Your task to perform on an android device: Go to Wikipedia Image 0: 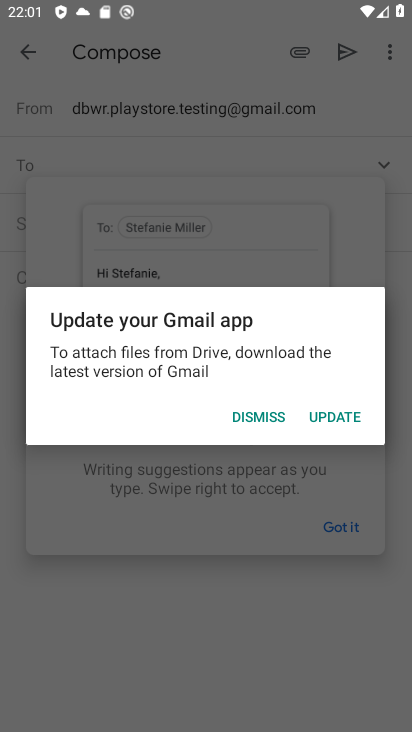
Step 0: press home button
Your task to perform on an android device: Go to Wikipedia Image 1: 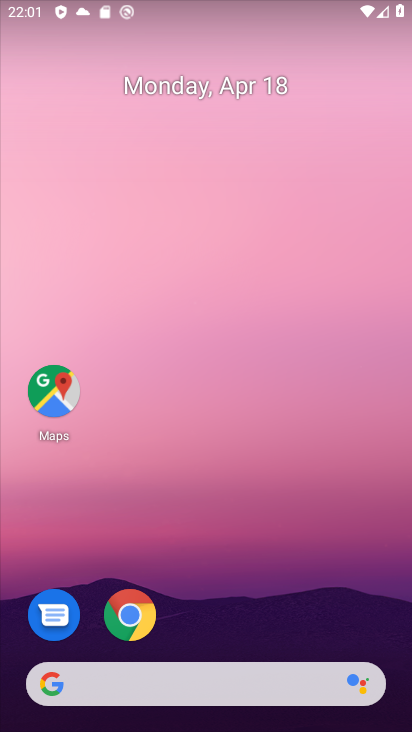
Step 1: click (141, 610)
Your task to perform on an android device: Go to Wikipedia Image 2: 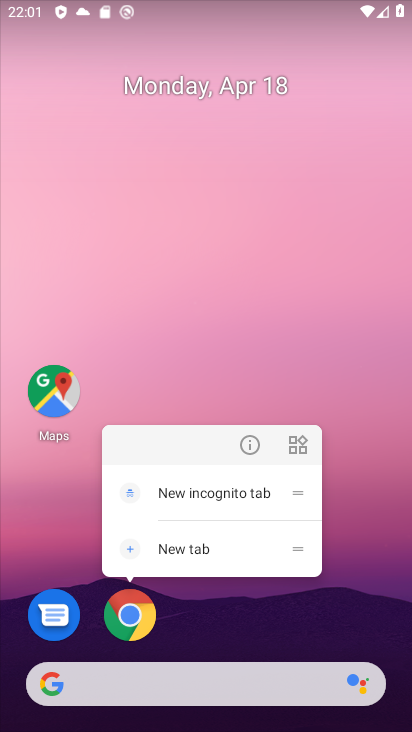
Step 2: click (131, 628)
Your task to perform on an android device: Go to Wikipedia Image 3: 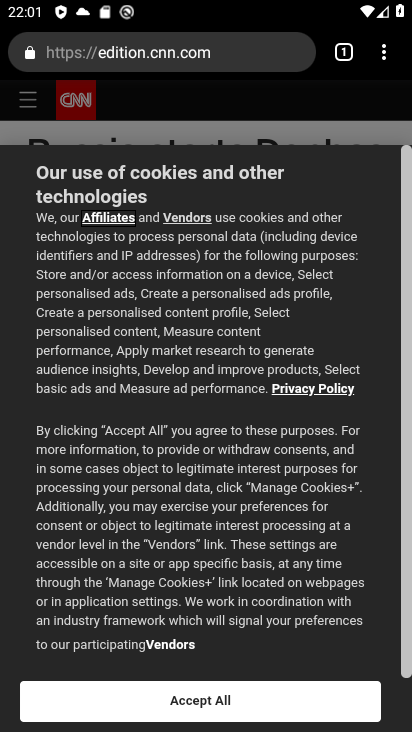
Step 3: click (387, 54)
Your task to perform on an android device: Go to Wikipedia Image 4: 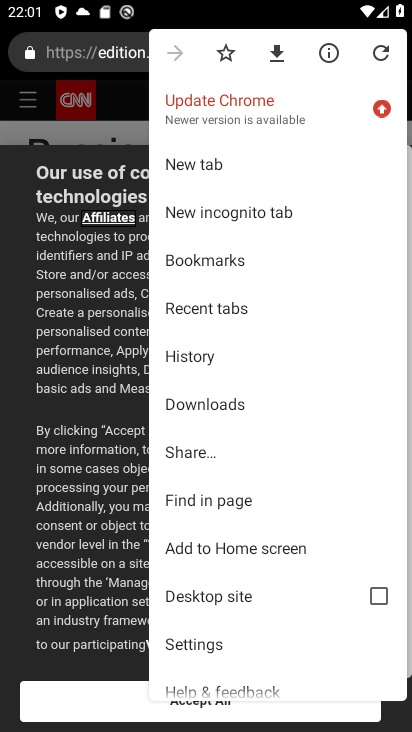
Step 4: click (211, 160)
Your task to perform on an android device: Go to Wikipedia Image 5: 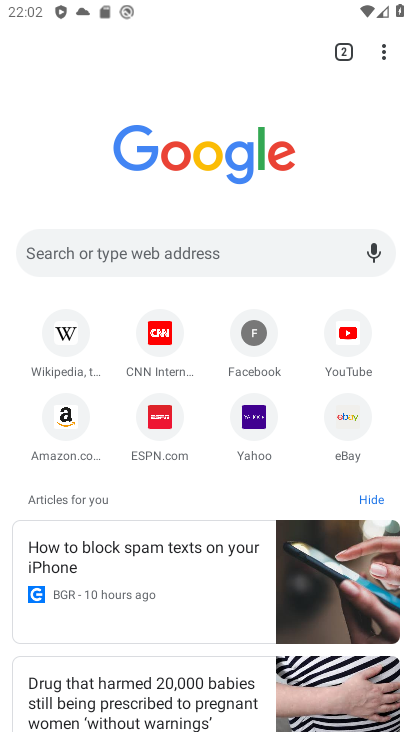
Step 5: click (60, 341)
Your task to perform on an android device: Go to Wikipedia Image 6: 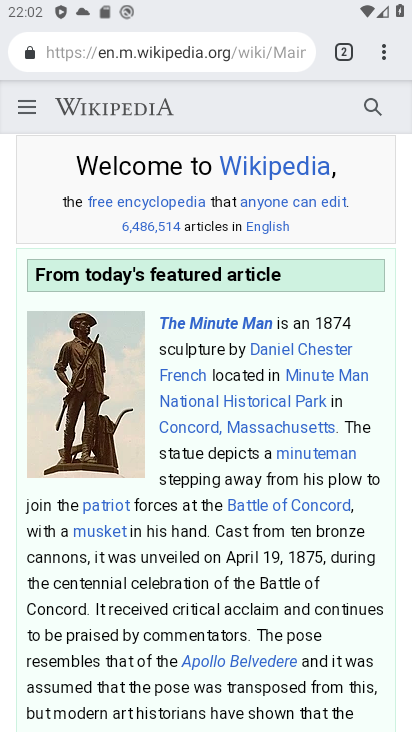
Step 6: task complete